Your task to perform on an android device: Go to notification settings Image 0: 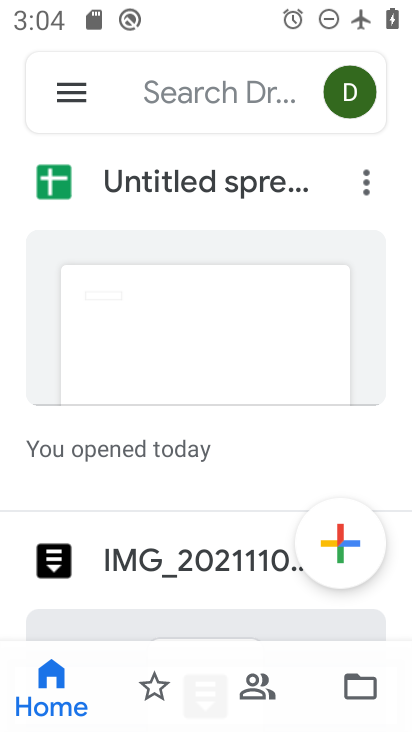
Step 0: press home button
Your task to perform on an android device: Go to notification settings Image 1: 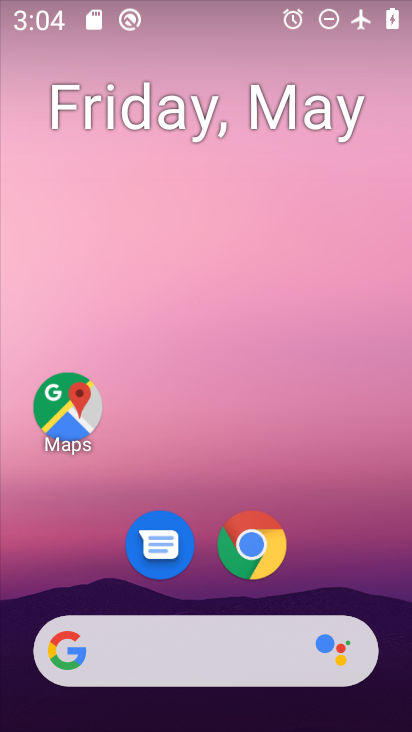
Step 1: drag from (299, 576) to (326, 304)
Your task to perform on an android device: Go to notification settings Image 2: 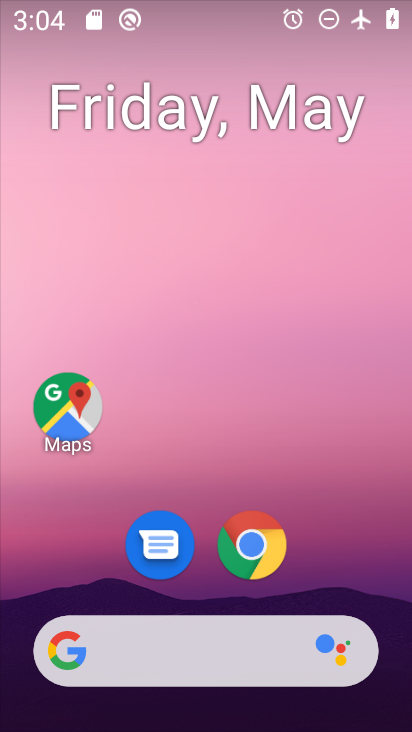
Step 2: drag from (286, 553) to (325, 219)
Your task to perform on an android device: Go to notification settings Image 3: 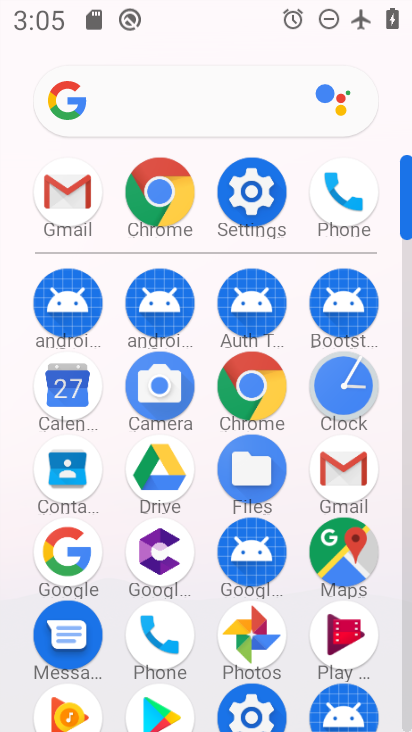
Step 3: click (261, 188)
Your task to perform on an android device: Go to notification settings Image 4: 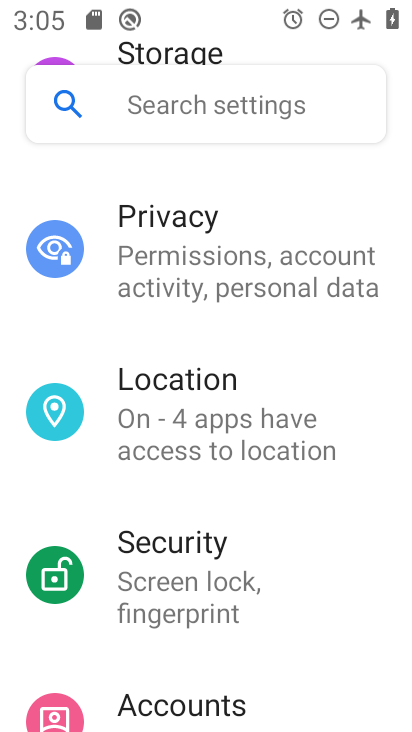
Step 4: drag from (241, 651) to (228, 712)
Your task to perform on an android device: Go to notification settings Image 5: 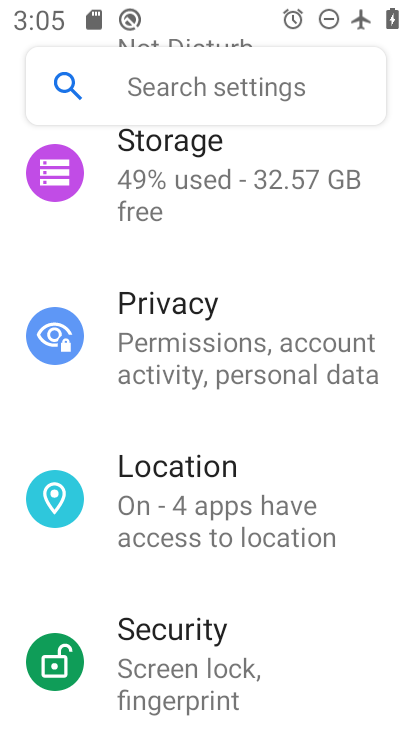
Step 5: drag from (186, 204) to (237, 611)
Your task to perform on an android device: Go to notification settings Image 6: 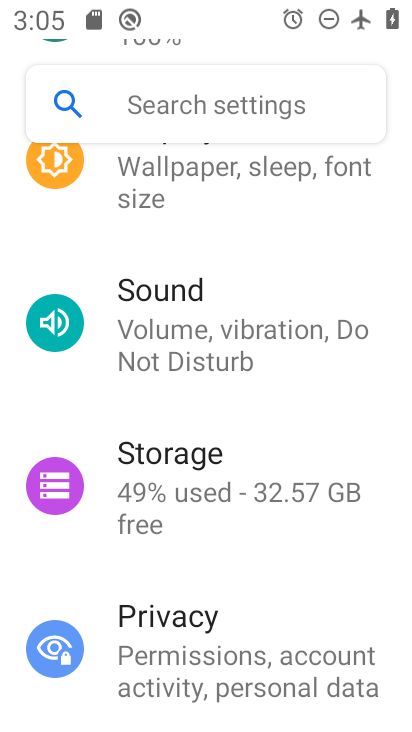
Step 6: drag from (255, 250) to (265, 636)
Your task to perform on an android device: Go to notification settings Image 7: 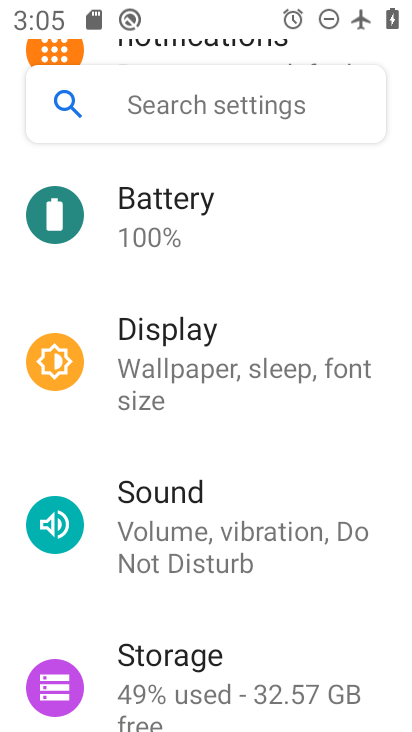
Step 7: drag from (257, 331) to (268, 622)
Your task to perform on an android device: Go to notification settings Image 8: 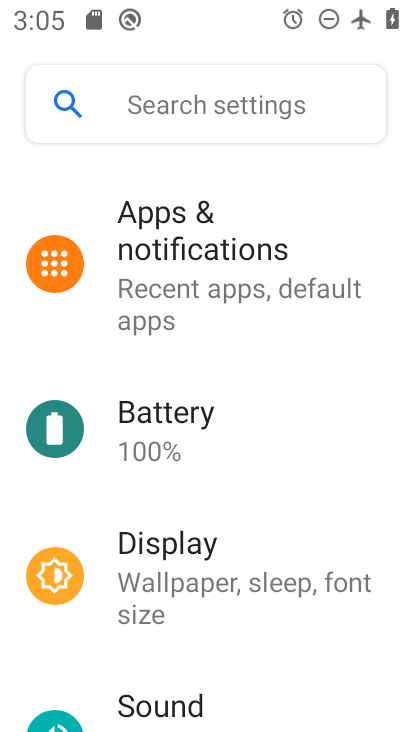
Step 8: click (231, 276)
Your task to perform on an android device: Go to notification settings Image 9: 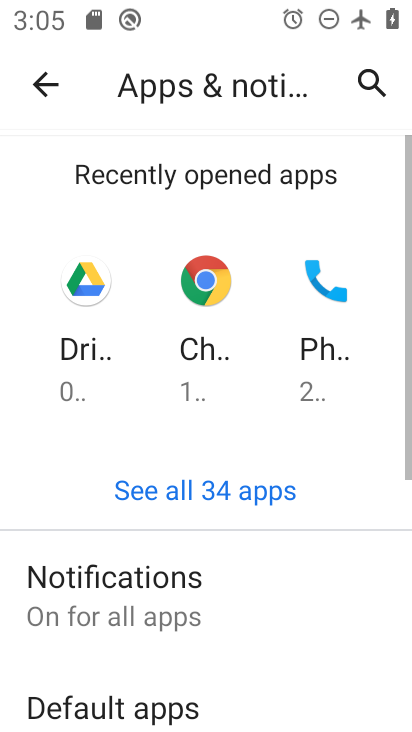
Step 9: click (184, 591)
Your task to perform on an android device: Go to notification settings Image 10: 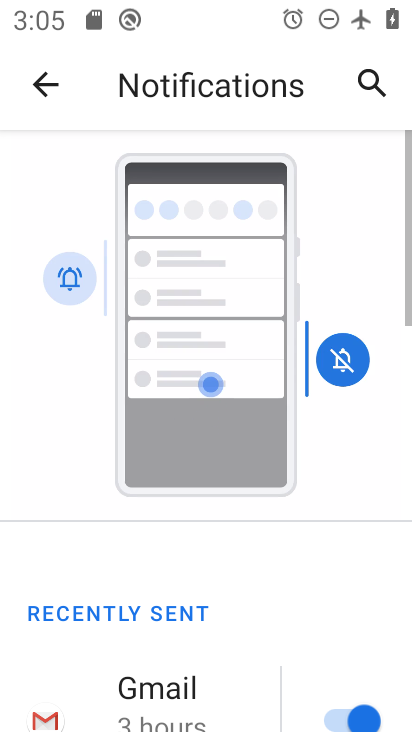
Step 10: task complete